Your task to perform on an android device: Search for good Chinese restaurants Image 0: 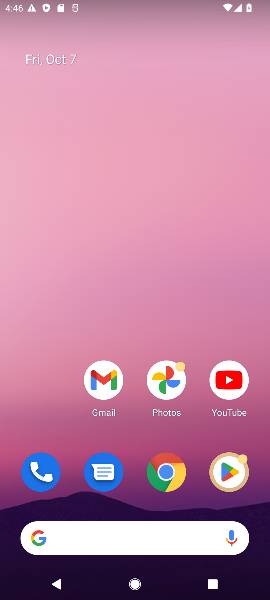
Step 0: click (160, 469)
Your task to perform on an android device: Search for good Chinese restaurants Image 1: 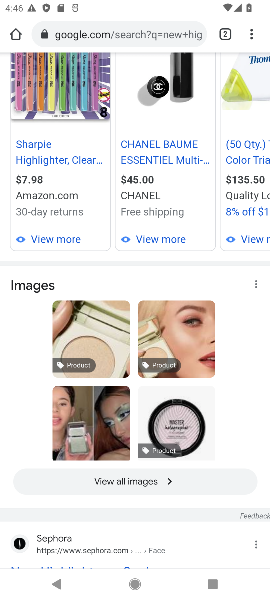
Step 1: click (126, 31)
Your task to perform on an android device: Search for good Chinese restaurants Image 2: 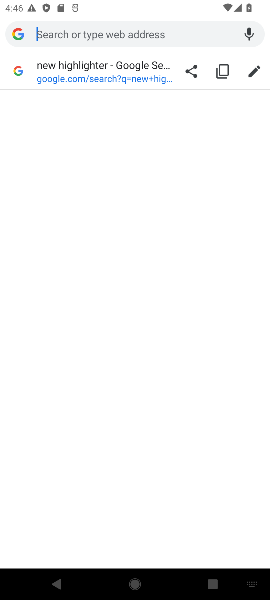
Step 2: type "good Chinese restaurants"
Your task to perform on an android device: Search for good Chinese restaurants Image 3: 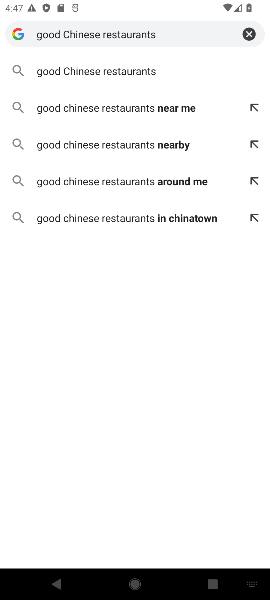
Step 3: click (62, 74)
Your task to perform on an android device: Search for good Chinese restaurants Image 4: 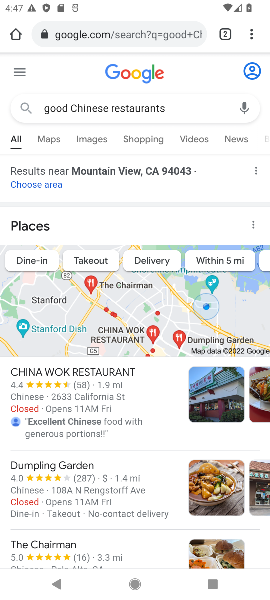
Step 4: drag from (121, 439) to (151, 185)
Your task to perform on an android device: Search for good Chinese restaurants Image 5: 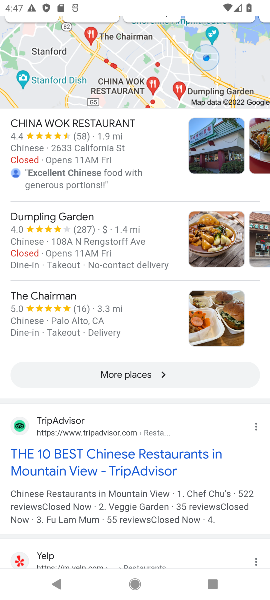
Step 5: click (133, 370)
Your task to perform on an android device: Search for good Chinese restaurants Image 6: 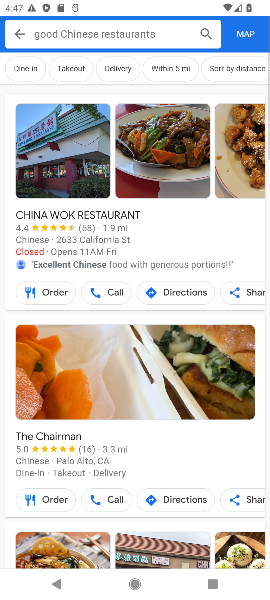
Step 6: task complete